Your task to perform on an android device: Show me productivity apps on the Play Store Image 0: 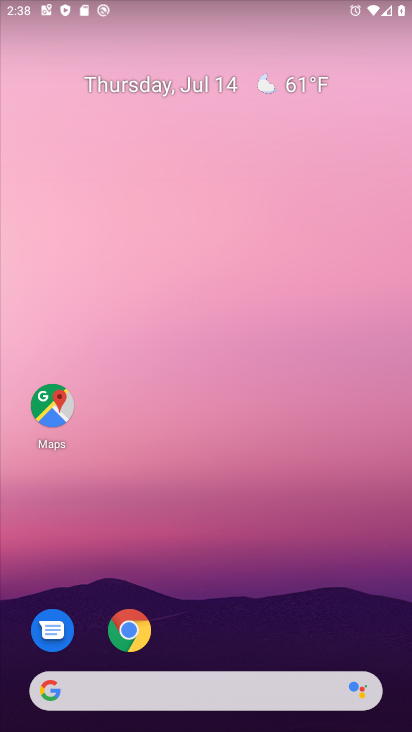
Step 0: drag from (181, 687) to (283, 234)
Your task to perform on an android device: Show me productivity apps on the Play Store Image 1: 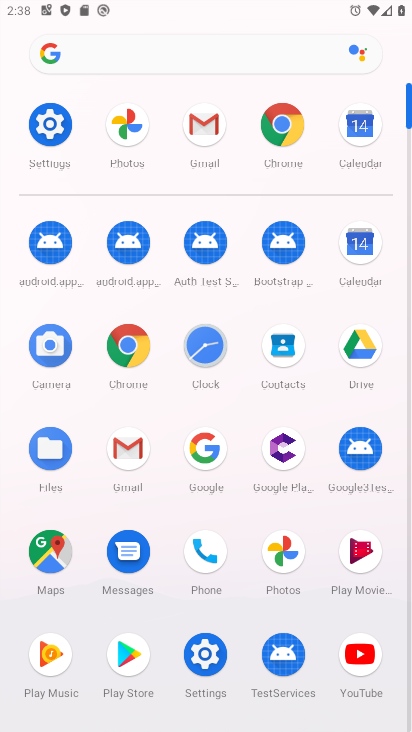
Step 1: click (128, 658)
Your task to perform on an android device: Show me productivity apps on the Play Store Image 2: 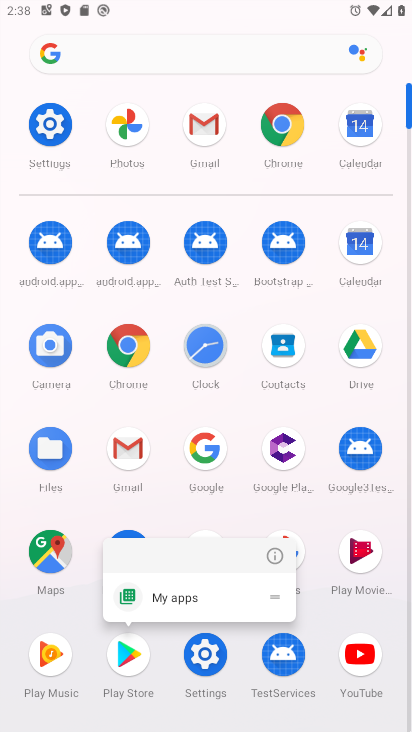
Step 2: click (124, 656)
Your task to perform on an android device: Show me productivity apps on the Play Store Image 3: 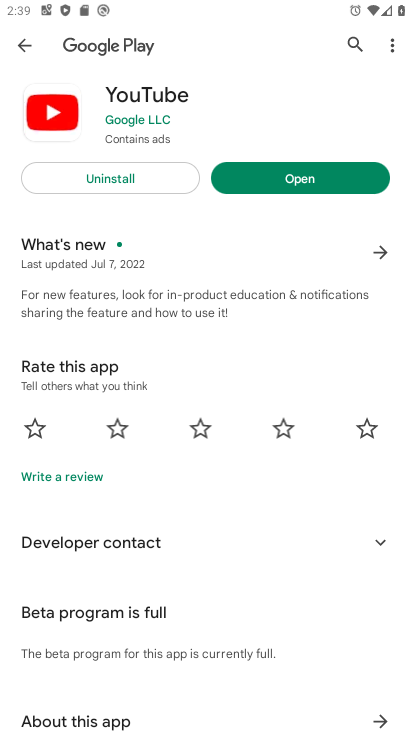
Step 3: click (27, 40)
Your task to perform on an android device: Show me productivity apps on the Play Store Image 4: 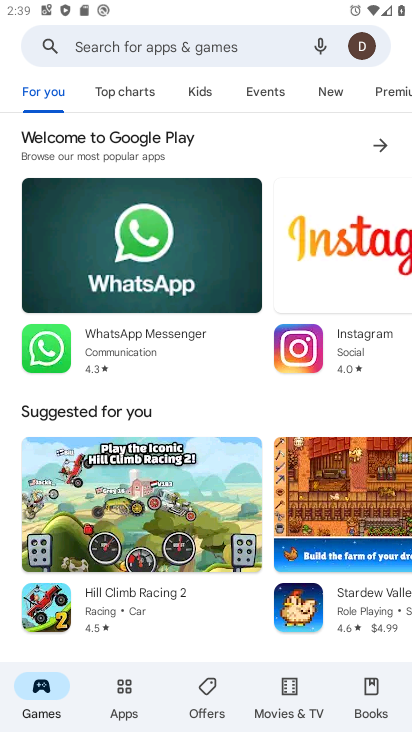
Step 4: click (120, 689)
Your task to perform on an android device: Show me productivity apps on the Play Store Image 5: 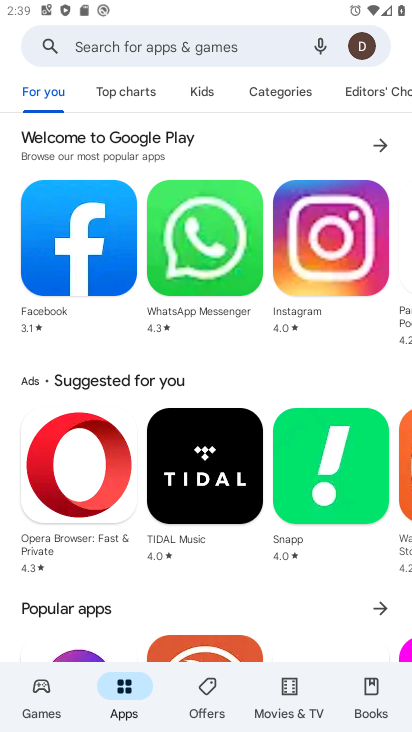
Step 5: click (275, 93)
Your task to perform on an android device: Show me productivity apps on the Play Store Image 6: 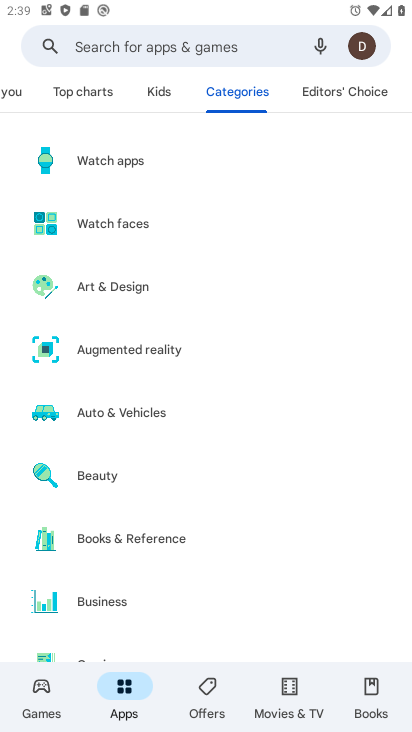
Step 6: drag from (176, 586) to (303, 112)
Your task to perform on an android device: Show me productivity apps on the Play Store Image 7: 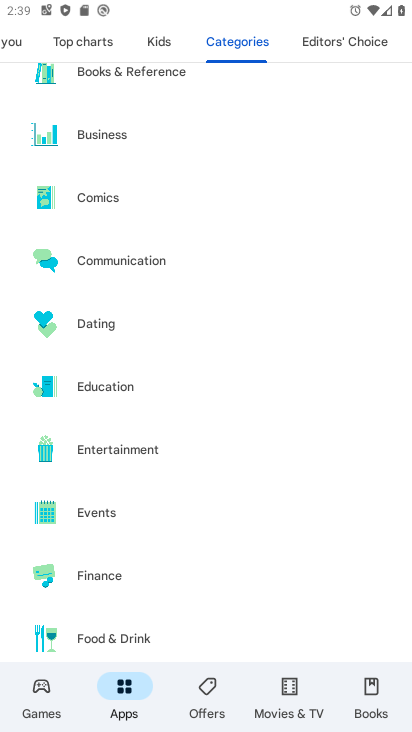
Step 7: drag from (213, 596) to (338, 86)
Your task to perform on an android device: Show me productivity apps on the Play Store Image 8: 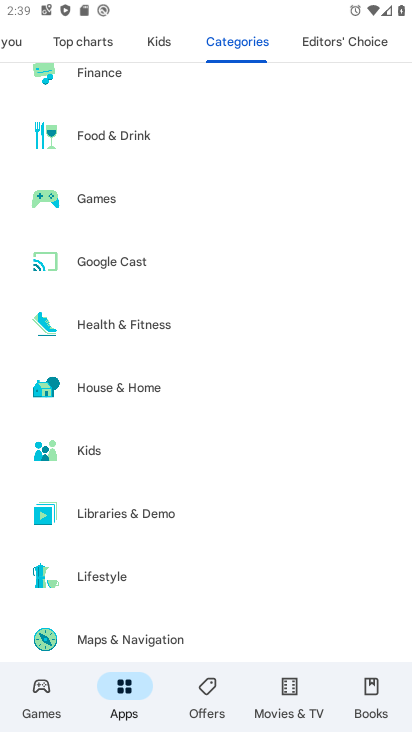
Step 8: drag from (218, 586) to (341, 98)
Your task to perform on an android device: Show me productivity apps on the Play Store Image 9: 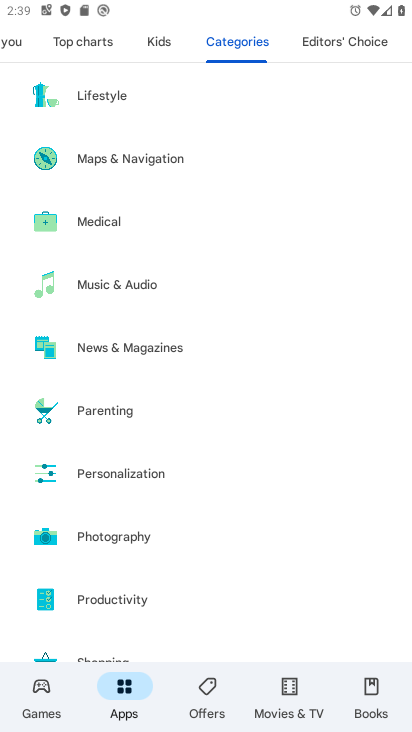
Step 9: drag from (220, 495) to (328, 194)
Your task to perform on an android device: Show me productivity apps on the Play Store Image 10: 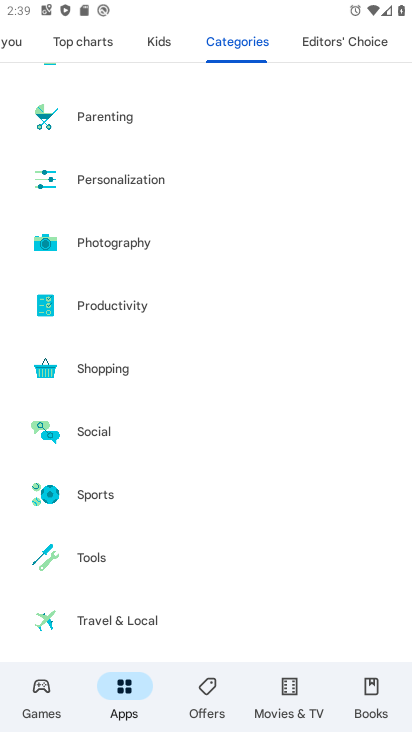
Step 10: click (118, 303)
Your task to perform on an android device: Show me productivity apps on the Play Store Image 11: 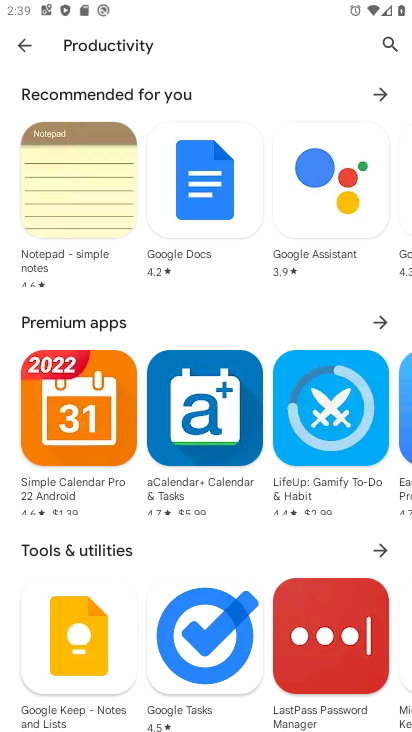
Step 11: task complete